Your task to perform on an android device: Open privacy settings Image 0: 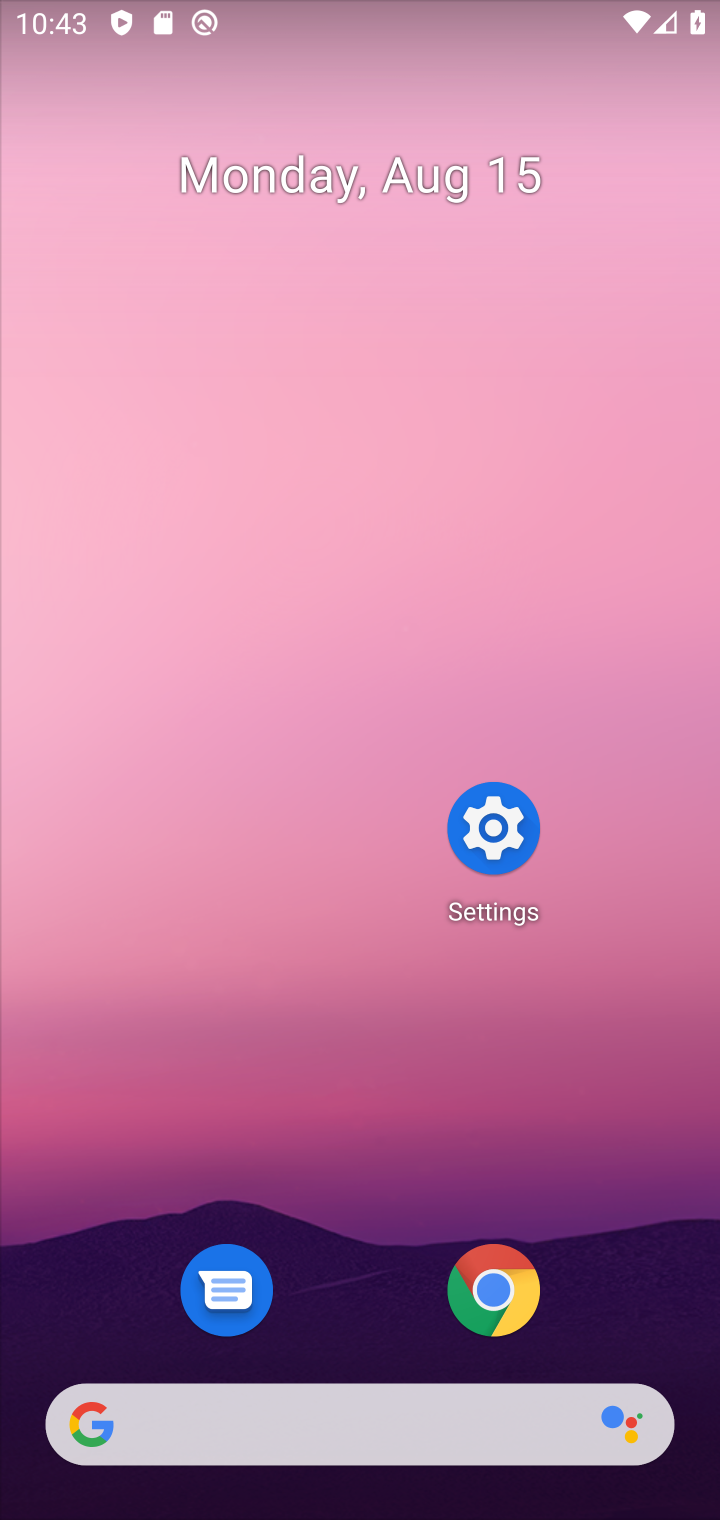
Step 0: click (493, 825)
Your task to perform on an android device: Open privacy settings Image 1: 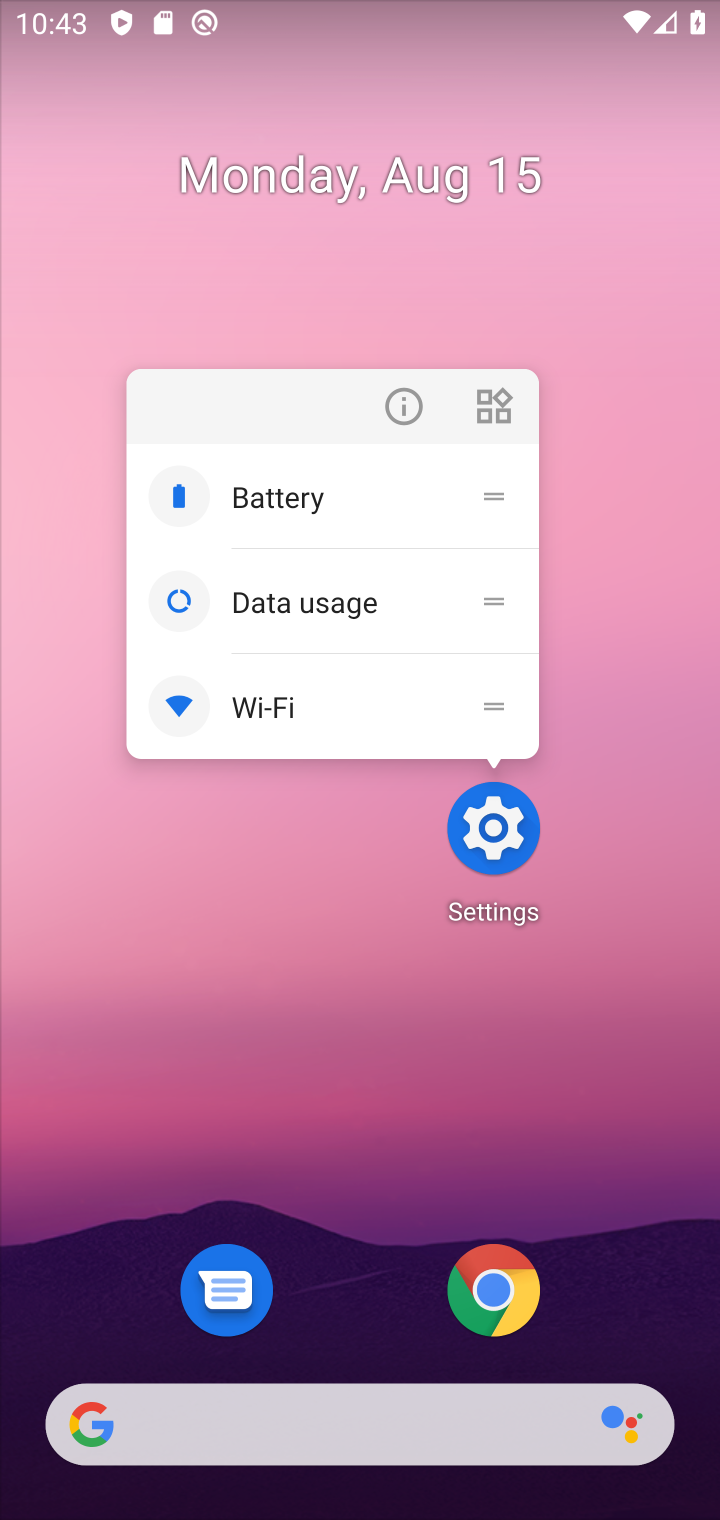
Step 1: click (493, 828)
Your task to perform on an android device: Open privacy settings Image 2: 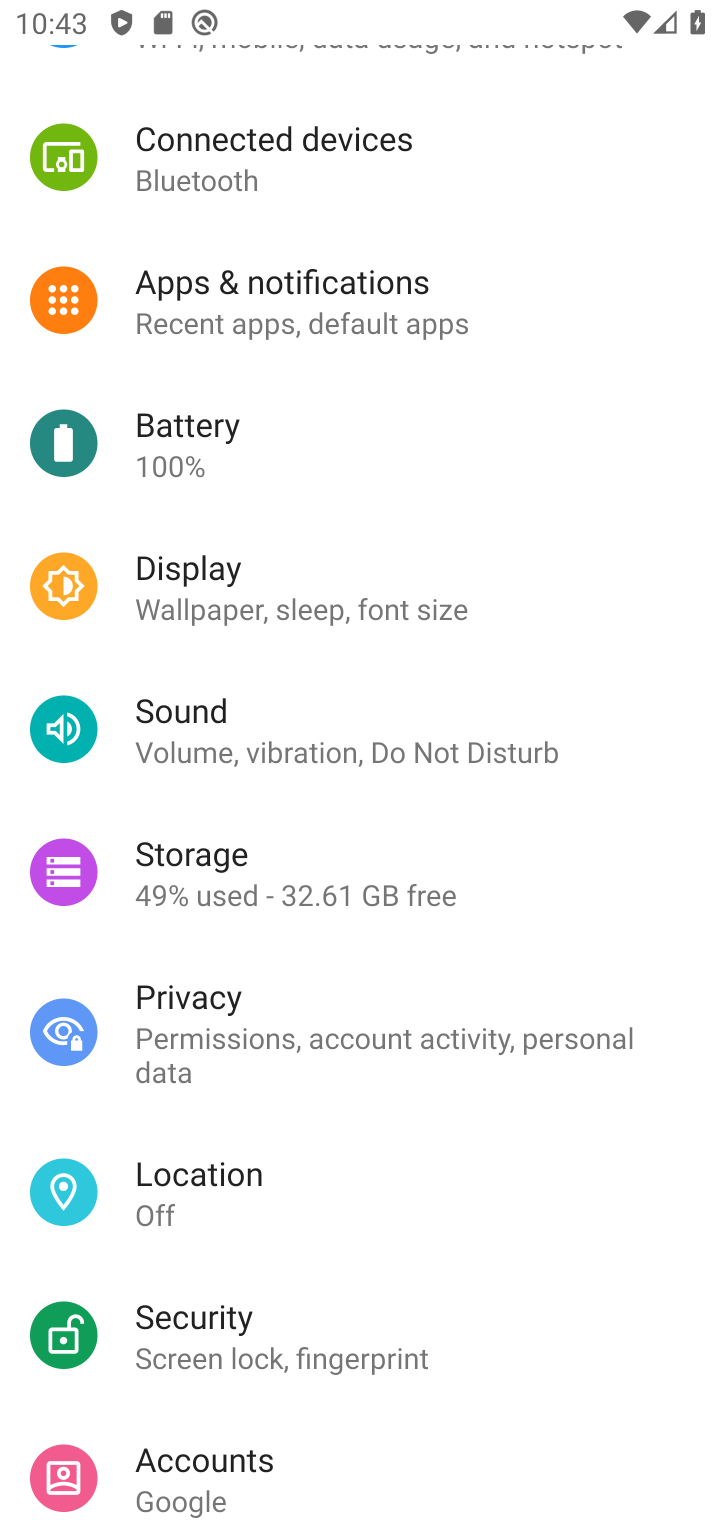
Step 2: click (173, 1020)
Your task to perform on an android device: Open privacy settings Image 3: 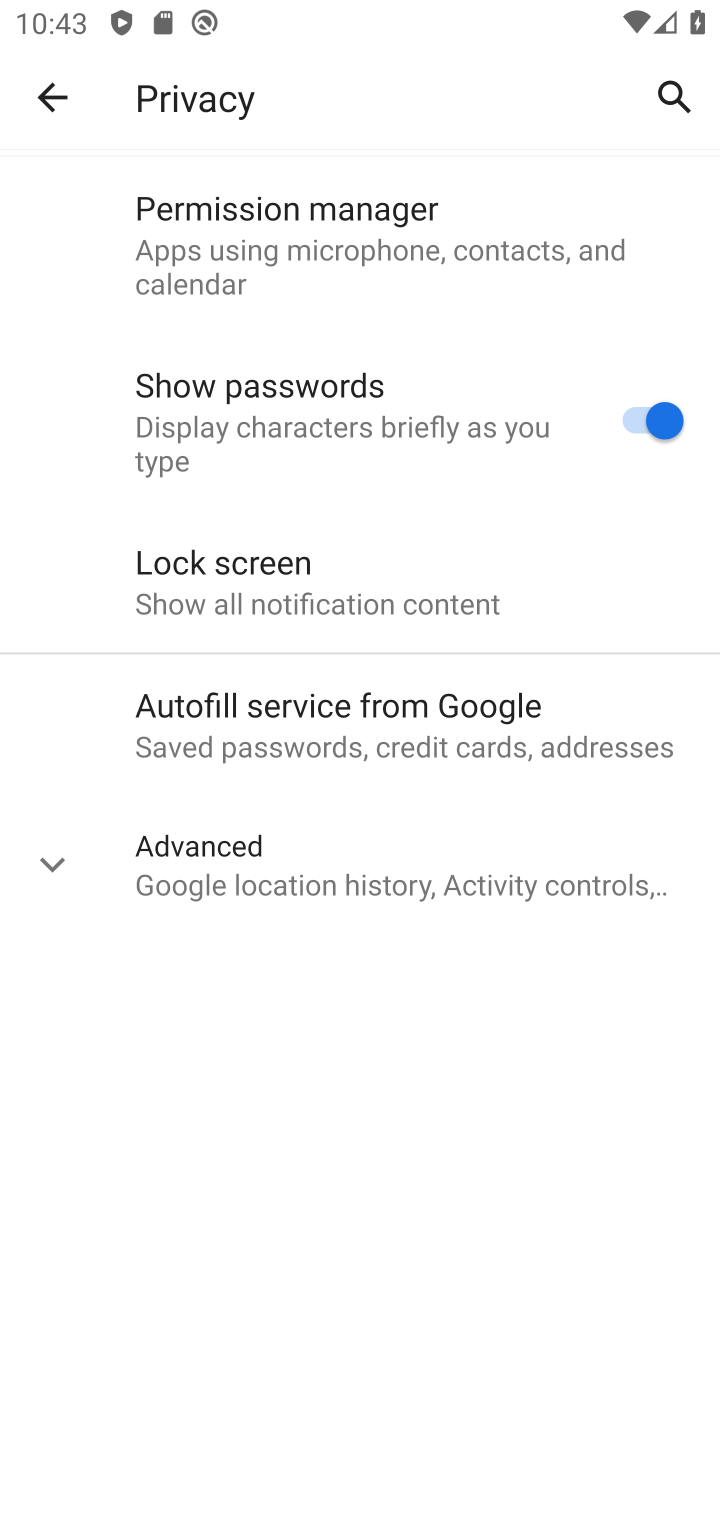
Step 3: task complete